Your task to perform on an android device: Open CNN.com Image 0: 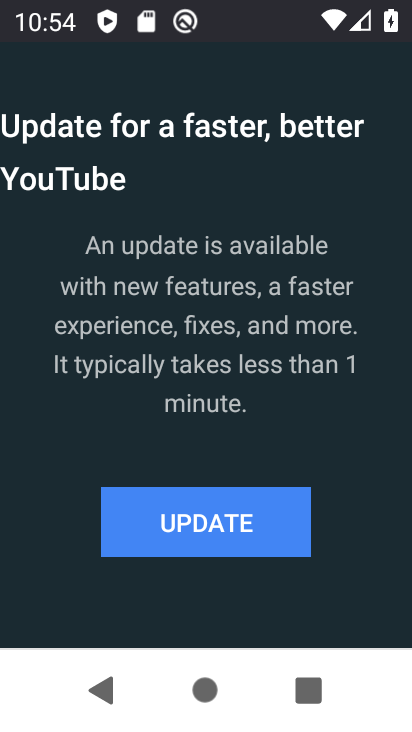
Step 0: press home button
Your task to perform on an android device: Open CNN.com Image 1: 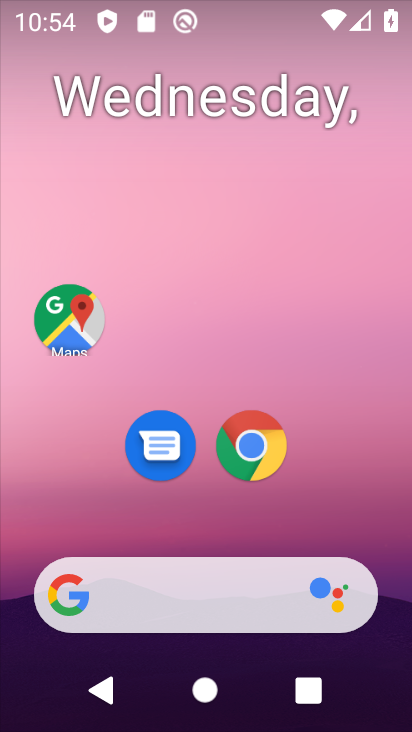
Step 1: drag from (134, 563) to (153, 126)
Your task to perform on an android device: Open CNN.com Image 2: 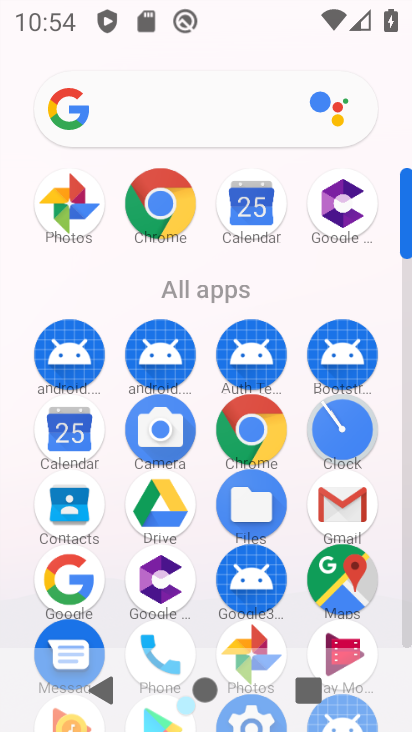
Step 2: click (72, 578)
Your task to perform on an android device: Open CNN.com Image 3: 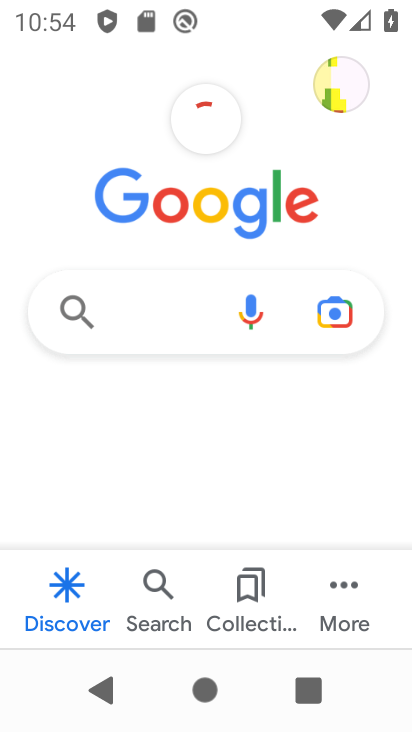
Step 3: click (149, 310)
Your task to perform on an android device: Open CNN.com Image 4: 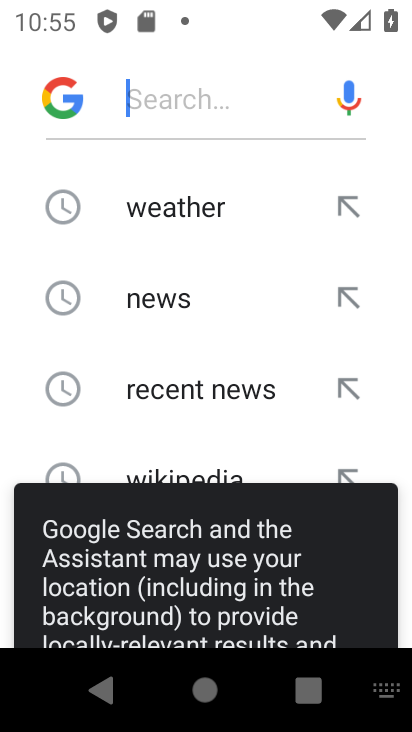
Step 4: drag from (156, 431) to (169, 127)
Your task to perform on an android device: Open CNN.com Image 5: 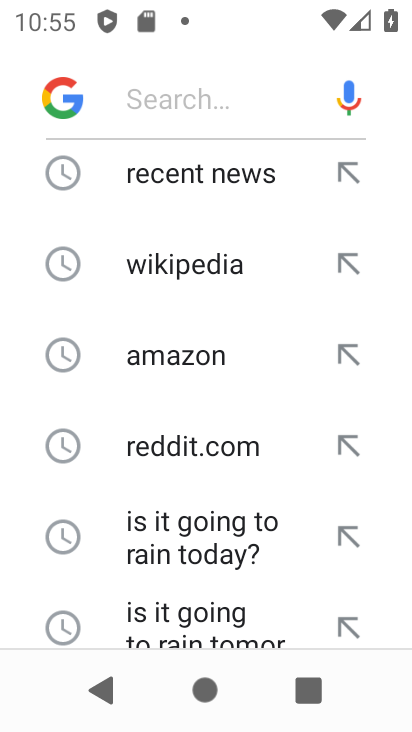
Step 5: drag from (188, 524) to (191, 136)
Your task to perform on an android device: Open CNN.com Image 6: 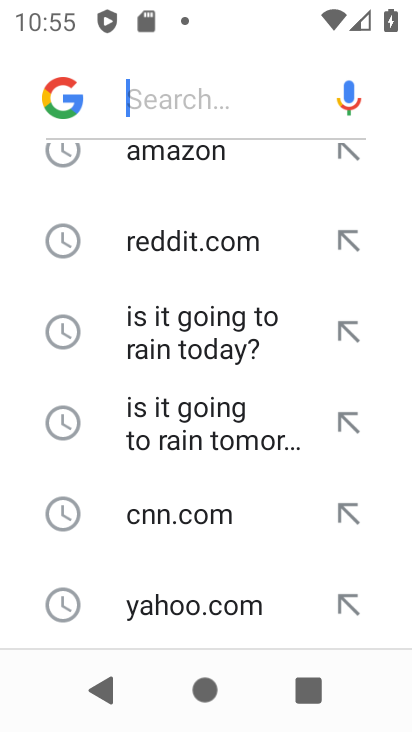
Step 6: click (191, 517)
Your task to perform on an android device: Open CNN.com Image 7: 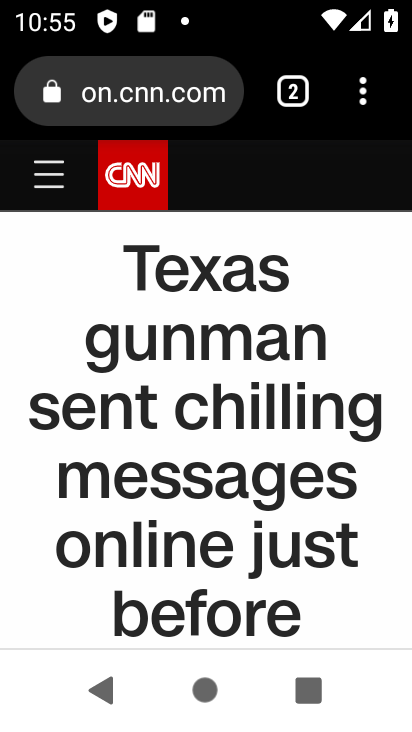
Step 7: task complete